Your task to perform on an android device: install app "Microsoft Outlook" Image 0: 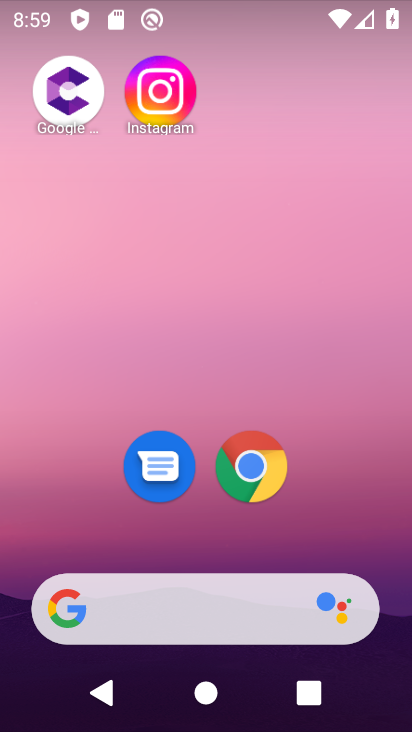
Step 0: drag from (242, 695) to (250, 135)
Your task to perform on an android device: install app "Microsoft Outlook" Image 1: 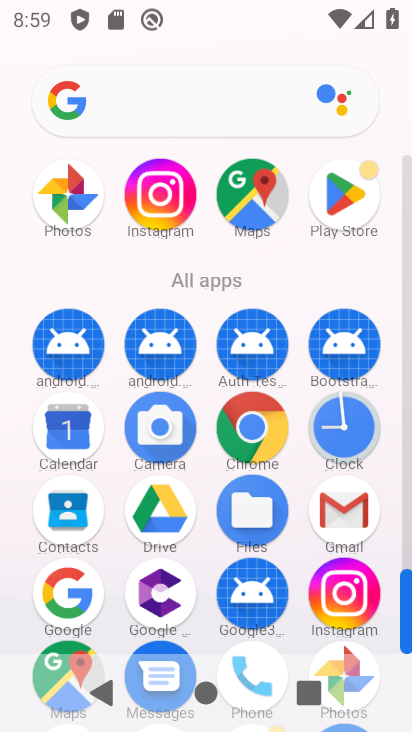
Step 1: click (345, 194)
Your task to perform on an android device: install app "Microsoft Outlook" Image 2: 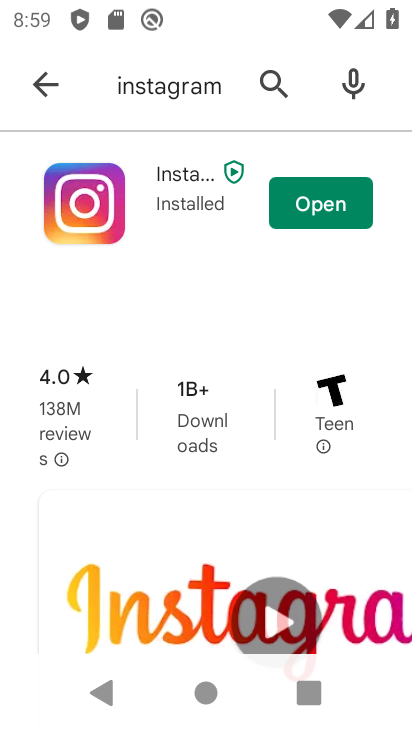
Step 2: click (274, 79)
Your task to perform on an android device: install app "Microsoft Outlook" Image 3: 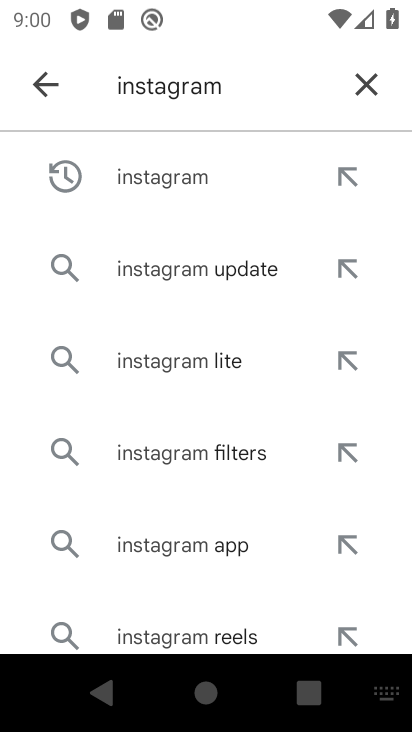
Step 3: click (367, 87)
Your task to perform on an android device: install app "Microsoft Outlook" Image 4: 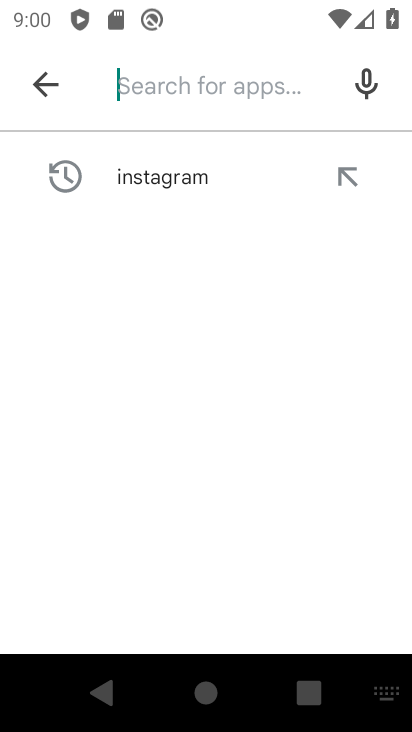
Step 4: type "Microsoft Outlook"
Your task to perform on an android device: install app "Microsoft Outlook" Image 5: 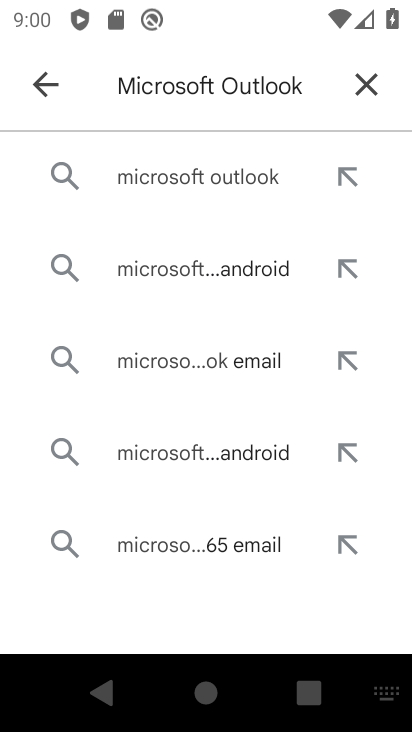
Step 5: click (236, 181)
Your task to perform on an android device: install app "Microsoft Outlook" Image 6: 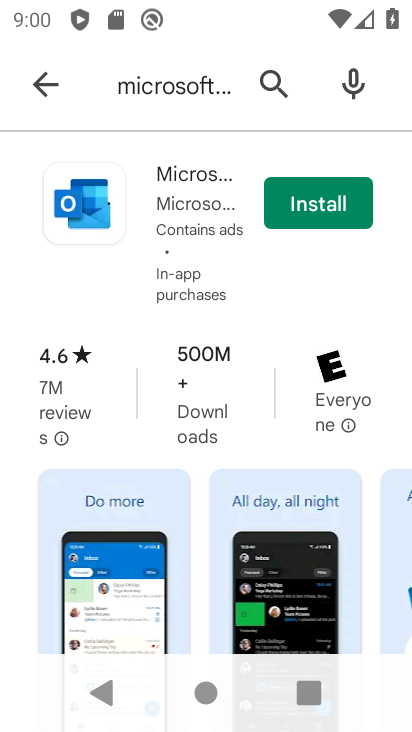
Step 6: click (319, 206)
Your task to perform on an android device: install app "Microsoft Outlook" Image 7: 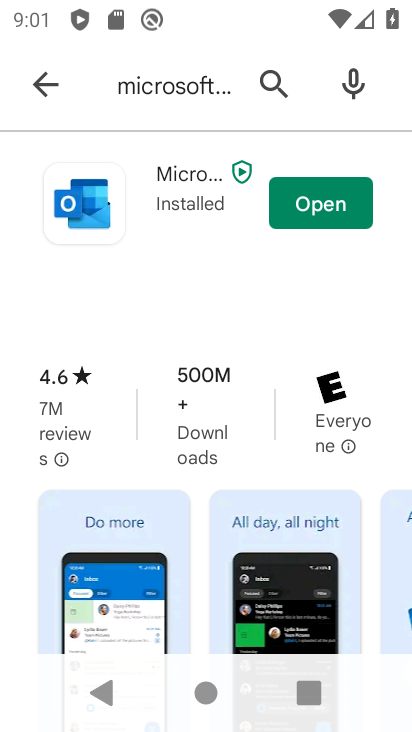
Step 7: task complete